Your task to perform on an android device: Go to sound settings Image 0: 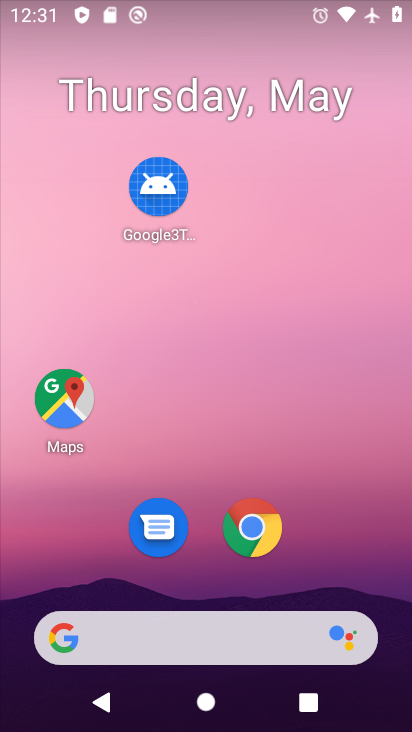
Step 0: press home button
Your task to perform on an android device: Go to sound settings Image 1: 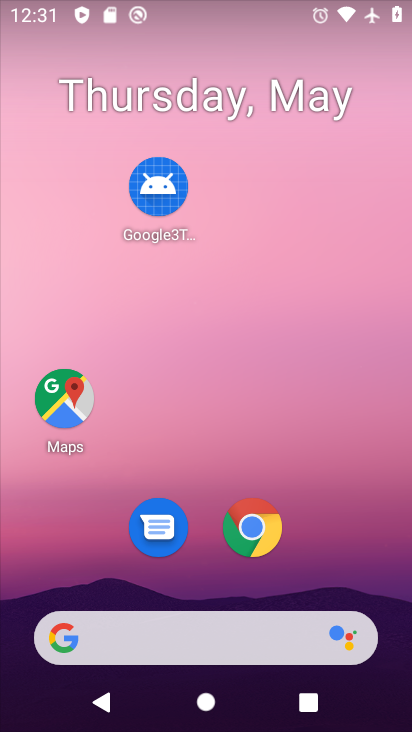
Step 1: drag from (201, 584) to (212, 83)
Your task to perform on an android device: Go to sound settings Image 2: 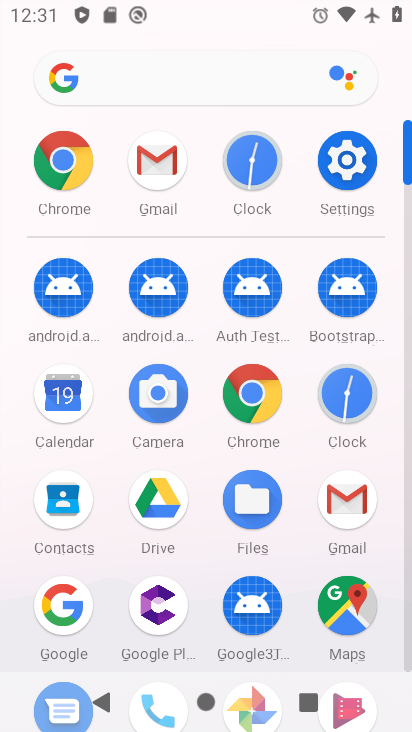
Step 2: click (341, 144)
Your task to perform on an android device: Go to sound settings Image 3: 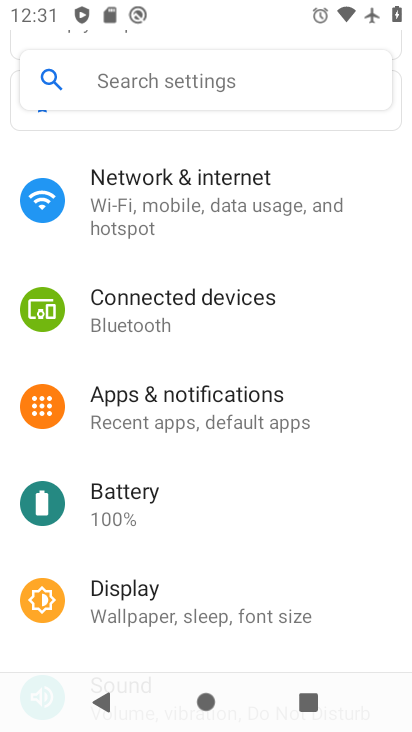
Step 3: drag from (184, 599) to (226, 362)
Your task to perform on an android device: Go to sound settings Image 4: 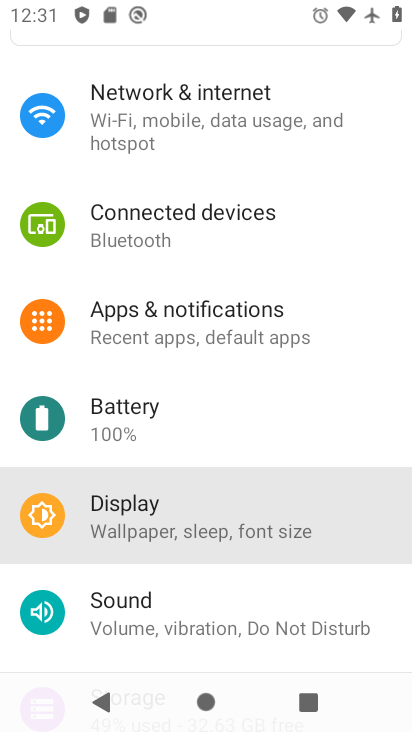
Step 4: drag from (242, 241) to (263, 111)
Your task to perform on an android device: Go to sound settings Image 5: 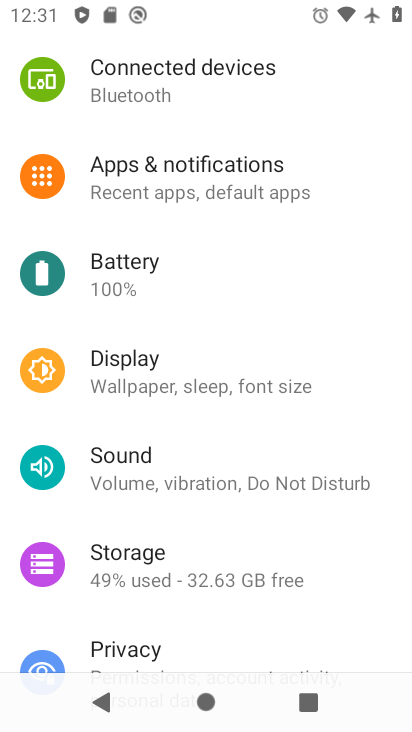
Step 5: click (165, 451)
Your task to perform on an android device: Go to sound settings Image 6: 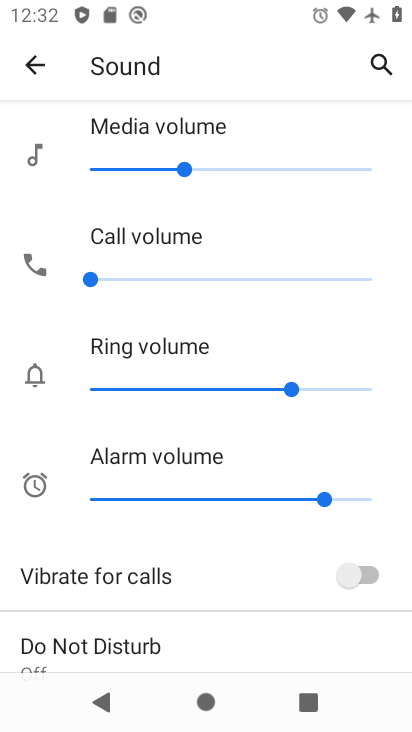
Step 6: drag from (212, 628) to (238, 97)
Your task to perform on an android device: Go to sound settings Image 7: 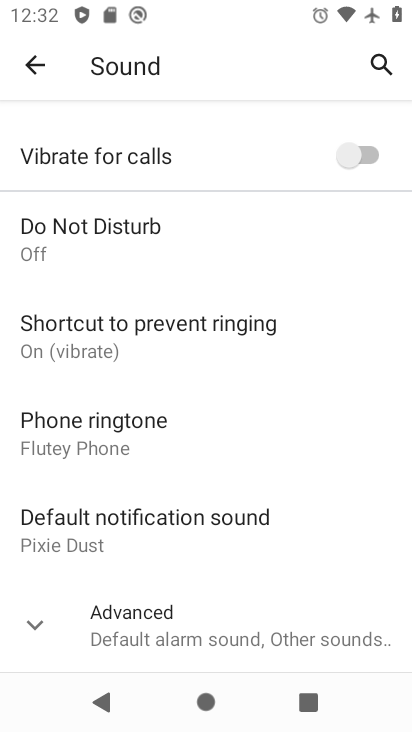
Step 7: click (39, 623)
Your task to perform on an android device: Go to sound settings Image 8: 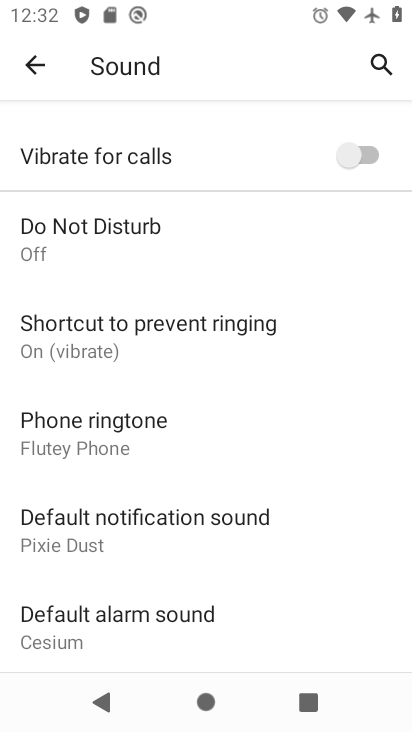
Step 8: task complete